Your task to perform on an android device: Who is the president of France? Image 0: 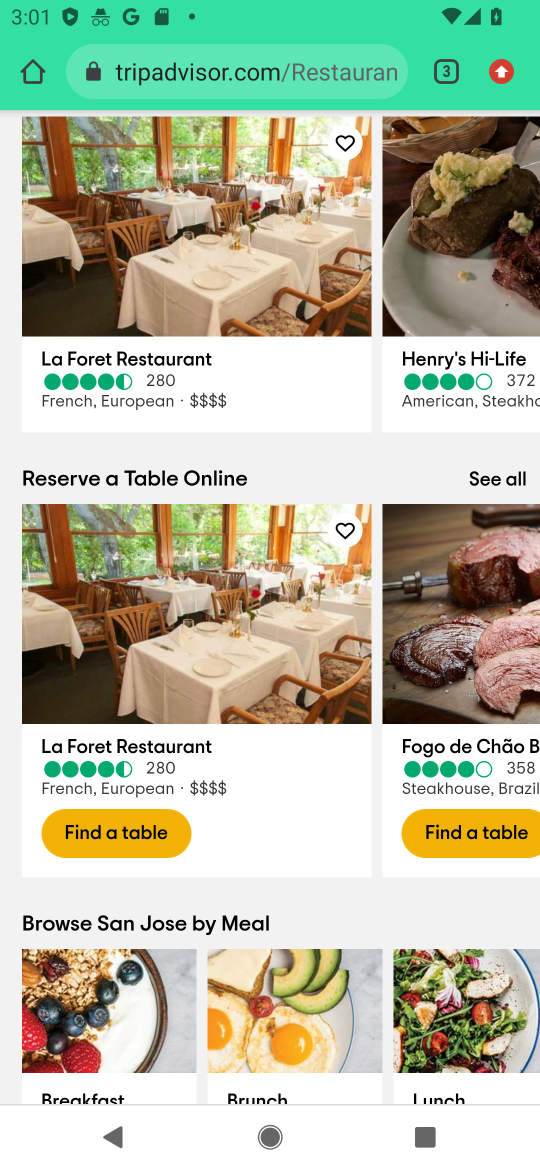
Step 0: click (268, 48)
Your task to perform on an android device: Who is the president of France? Image 1: 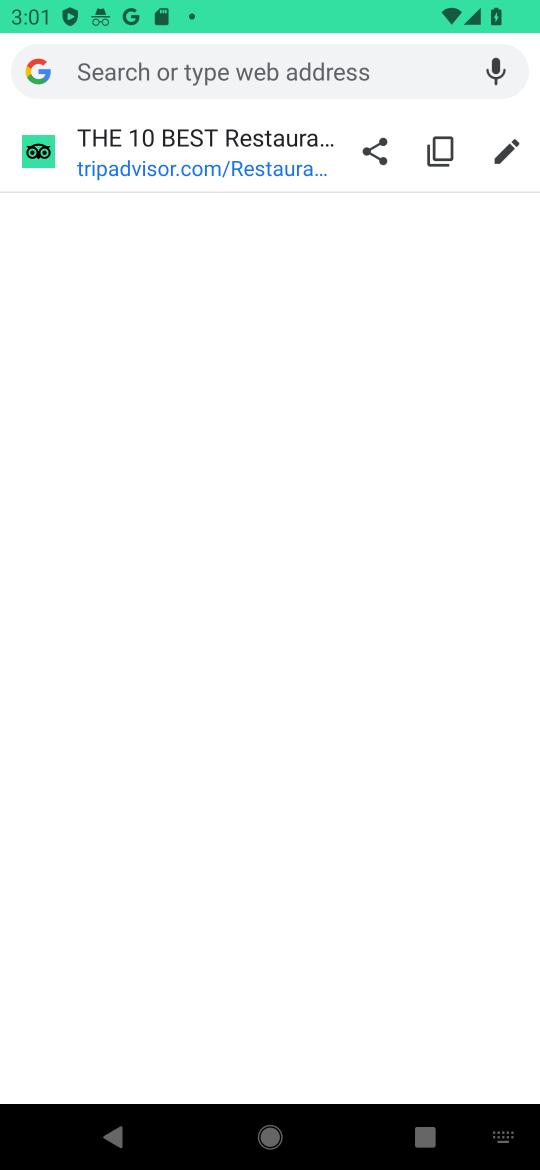
Step 1: type "Who is the president of France?"
Your task to perform on an android device: Who is the president of France? Image 2: 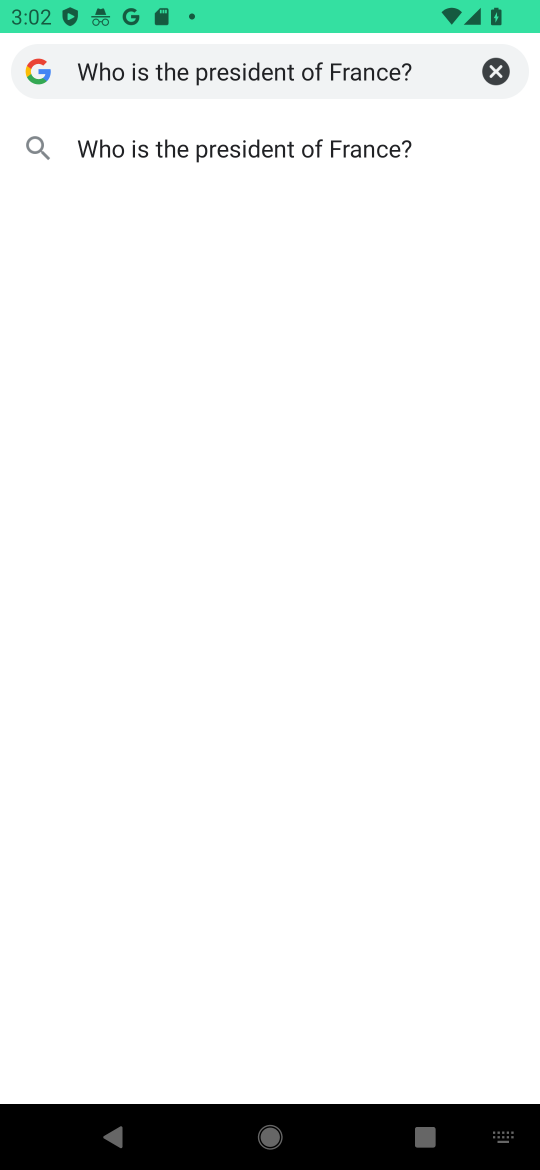
Step 2: click (217, 154)
Your task to perform on an android device: Who is the president of France? Image 3: 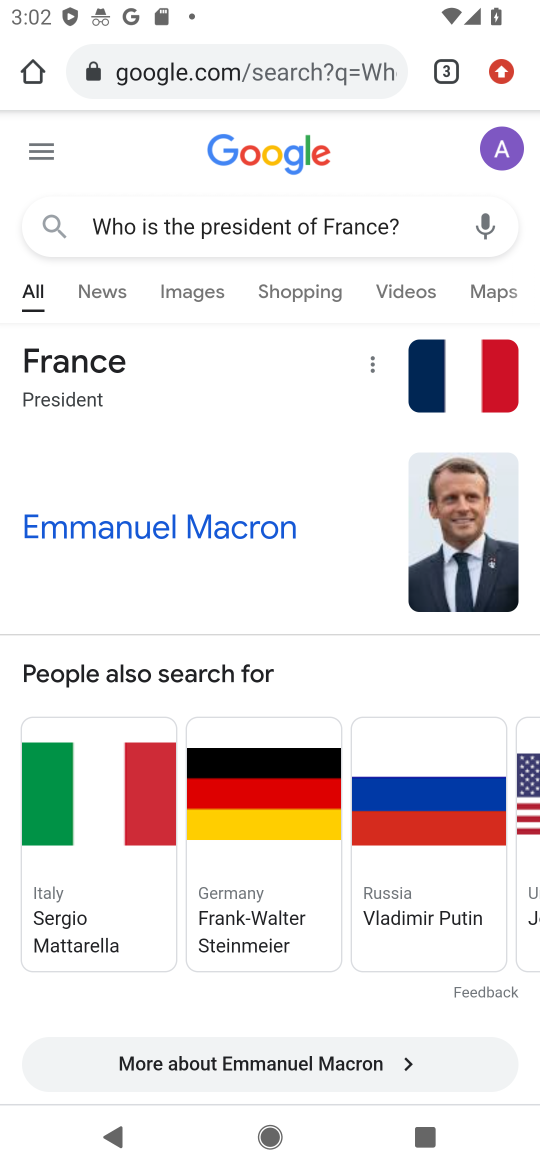
Step 3: task complete